Your task to perform on an android device: open the mobile data screen to see how much data has been used Image 0: 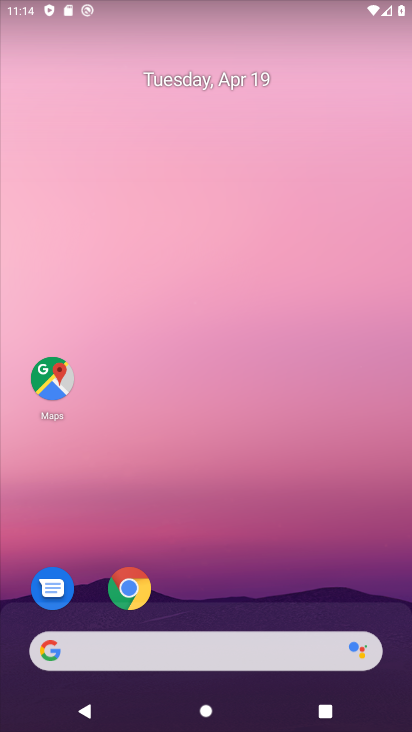
Step 0: drag from (213, 443) to (300, 16)
Your task to perform on an android device: open the mobile data screen to see how much data has been used Image 1: 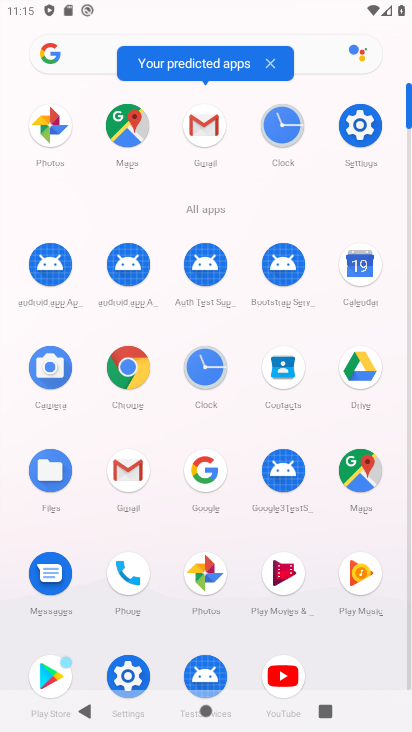
Step 1: click (351, 121)
Your task to perform on an android device: open the mobile data screen to see how much data has been used Image 2: 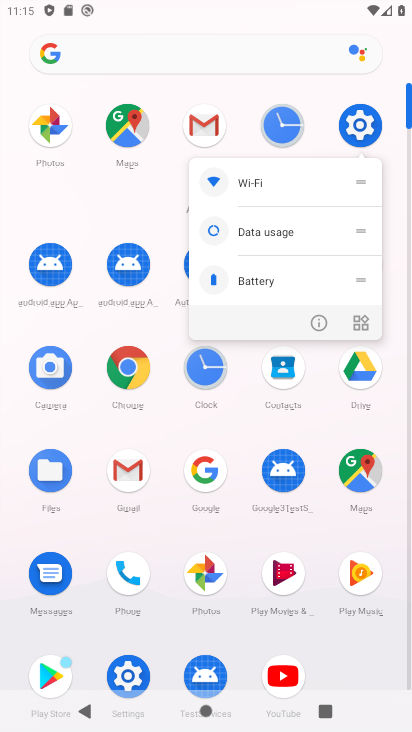
Step 2: click (361, 122)
Your task to perform on an android device: open the mobile data screen to see how much data has been used Image 3: 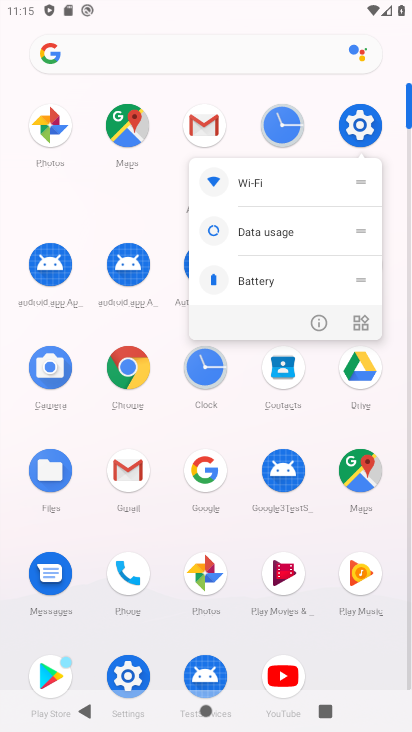
Step 3: click (356, 121)
Your task to perform on an android device: open the mobile data screen to see how much data has been used Image 4: 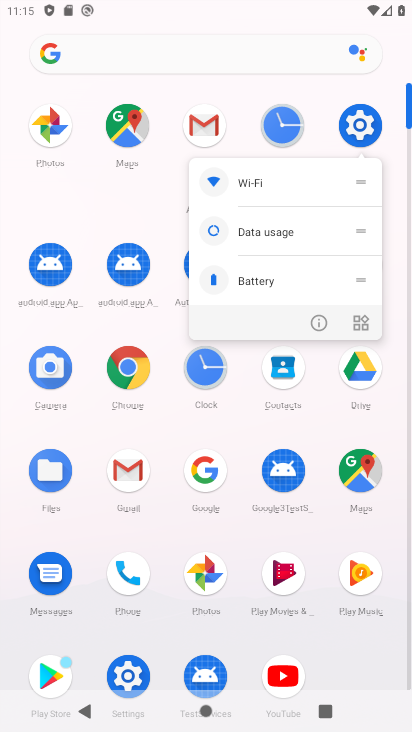
Step 4: click (69, 213)
Your task to perform on an android device: open the mobile data screen to see how much data has been used Image 5: 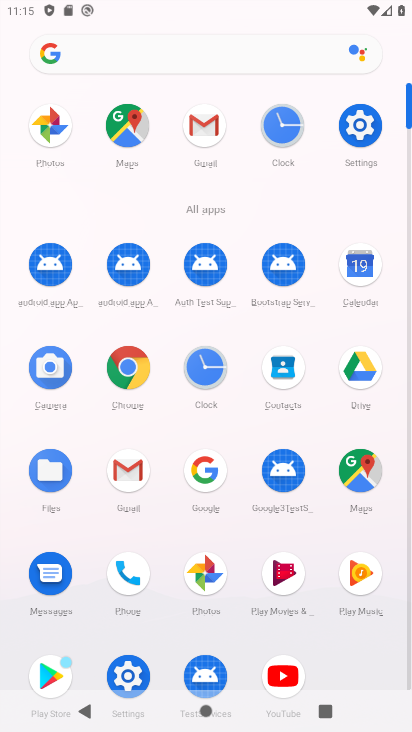
Step 5: click (357, 117)
Your task to perform on an android device: open the mobile data screen to see how much data has been used Image 6: 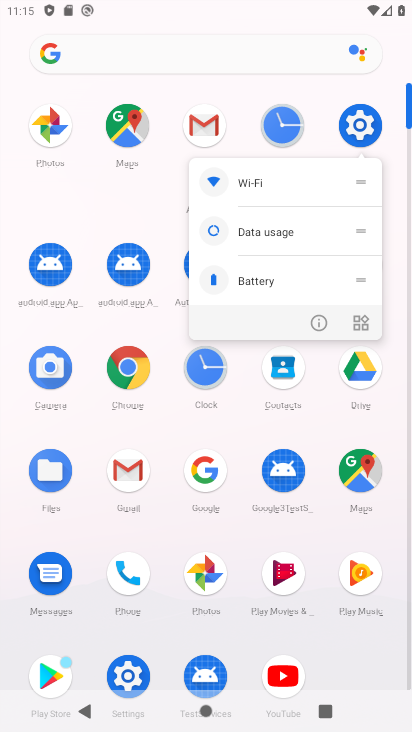
Step 6: click (363, 129)
Your task to perform on an android device: open the mobile data screen to see how much data has been used Image 7: 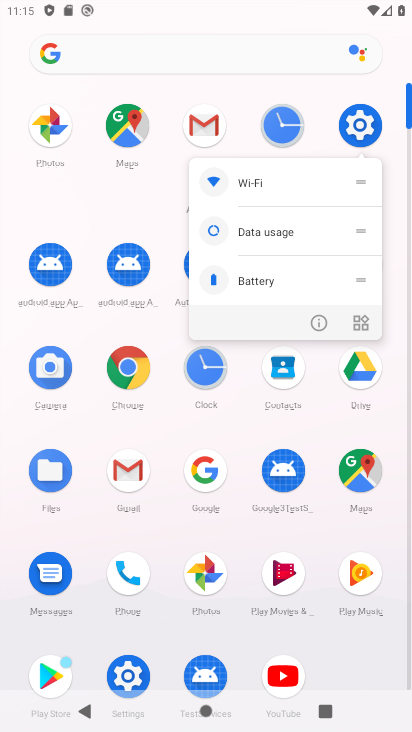
Step 7: click (347, 123)
Your task to perform on an android device: open the mobile data screen to see how much data has been used Image 8: 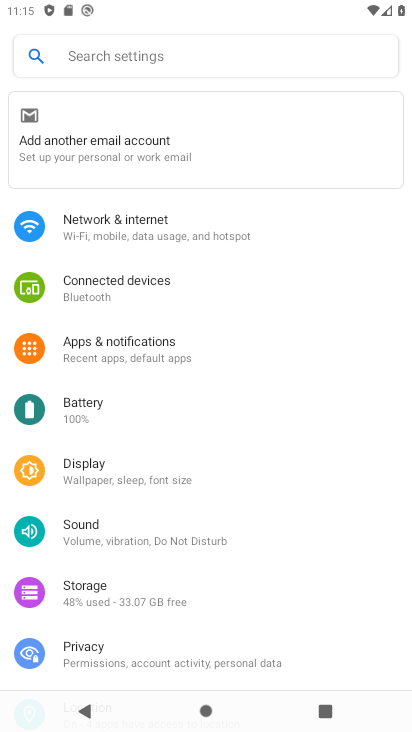
Step 8: click (139, 223)
Your task to perform on an android device: open the mobile data screen to see how much data has been used Image 9: 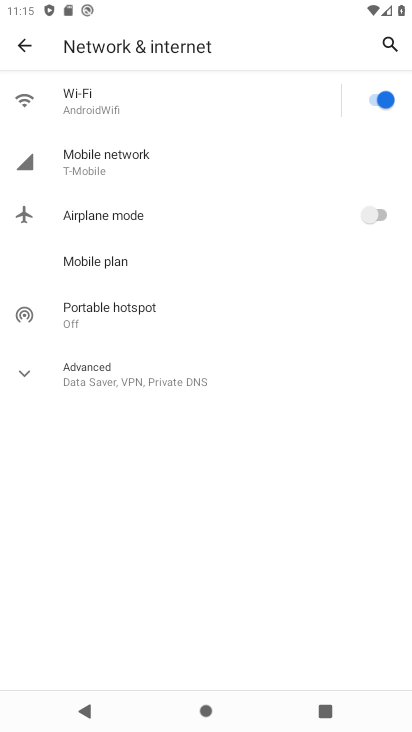
Step 9: click (112, 166)
Your task to perform on an android device: open the mobile data screen to see how much data has been used Image 10: 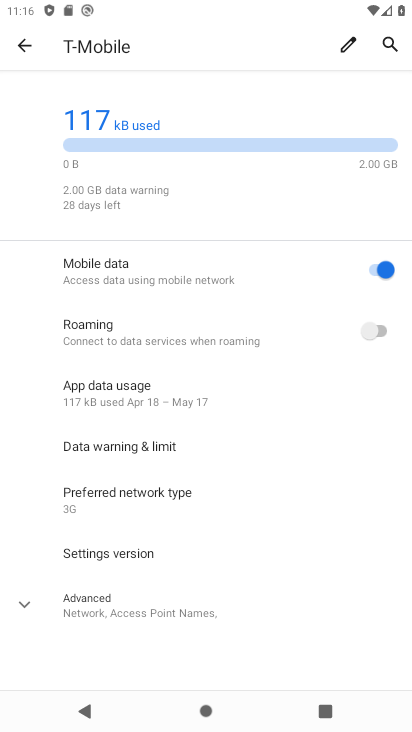
Step 10: click (140, 393)
Your task to perform on an android device: open the mobile data screen to see how much data has been used Image 11: 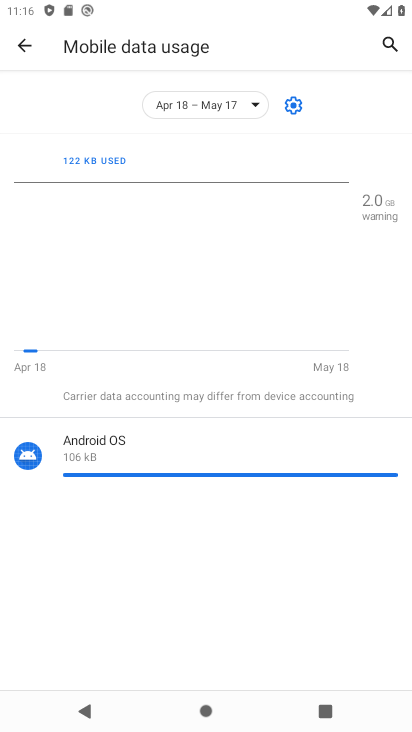
Step 11: task complete